Your task to perform on an android device: Go to Amazon Image 0: 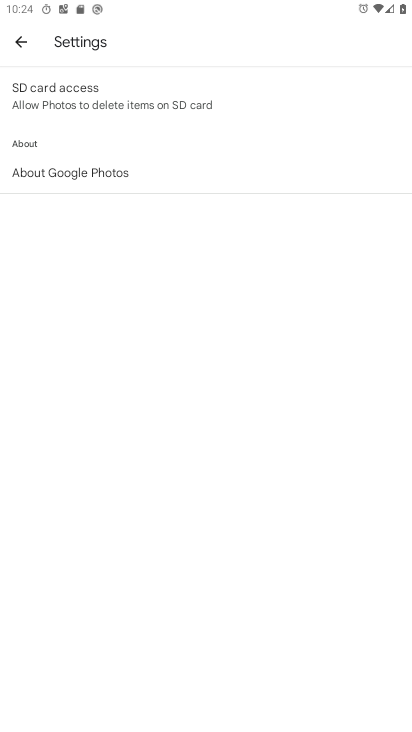
Step 0: press home button
Your task to perform on an android device: Go to Amazon Image 1: 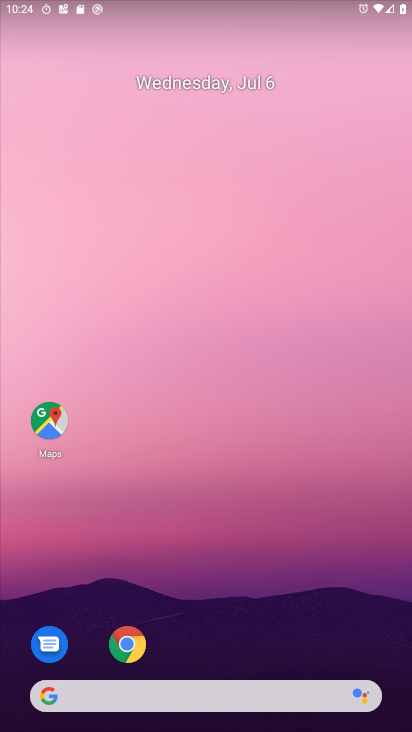
Step 1: drag from (266, 615) to (222, 178)
Your task to perform on an android device: Go to Amazon Image 2: 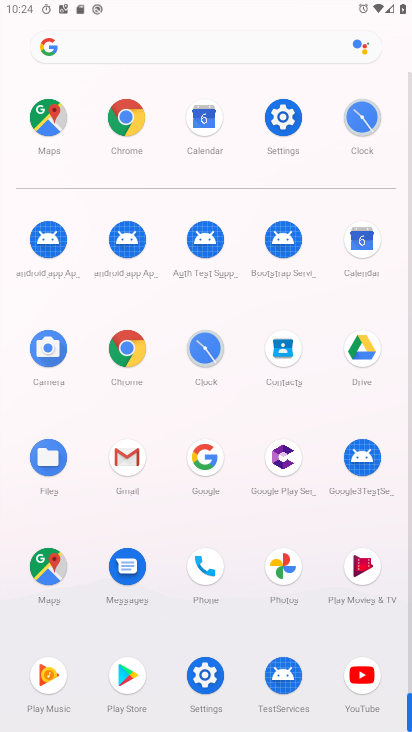
Step 2: click (120, 117)
Your task to perform on an android device: Go to Amazon Image 3: 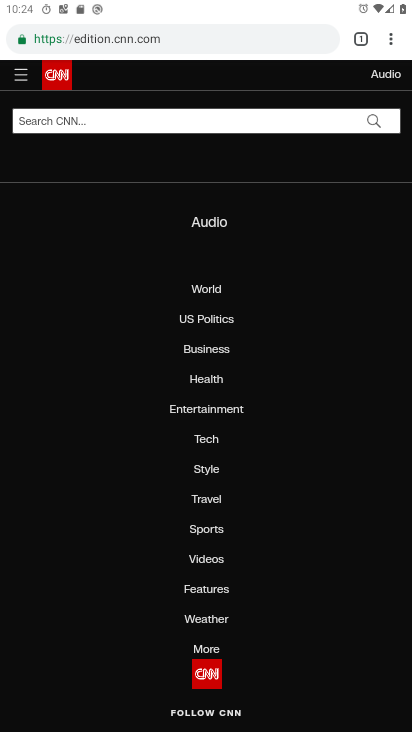
Step 3: click (197, 32)
Your task to perform on an android device: Go to Amazon Image 4: 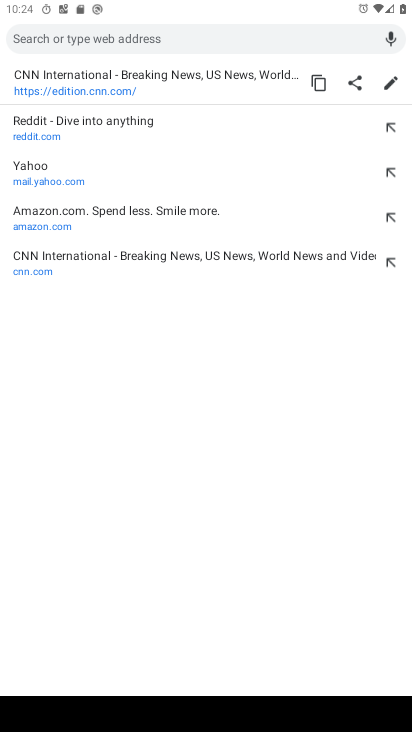
Step 4: type "amazon"
Your task to perform on an android device: Go to Amazon Image 5: 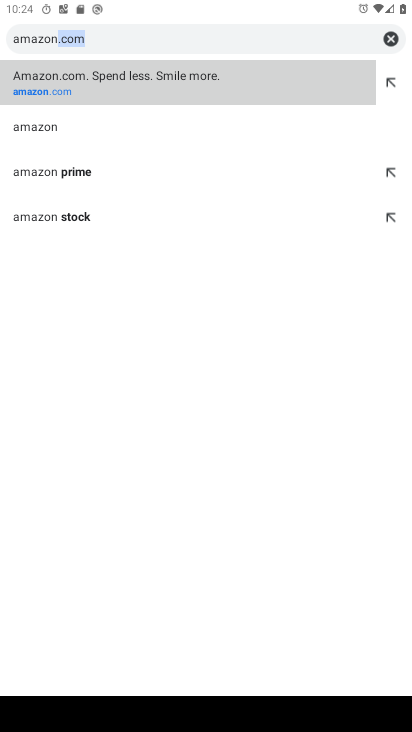
Step 5: click (169, 80)
Your task to perform on an android device: Go to Amazon Image 6: 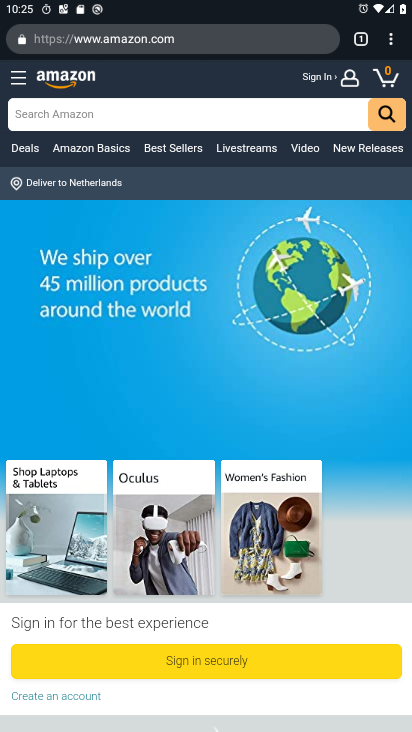
Step 6: task complete